Your task to perform on an android device: Go to eBay Image 0: 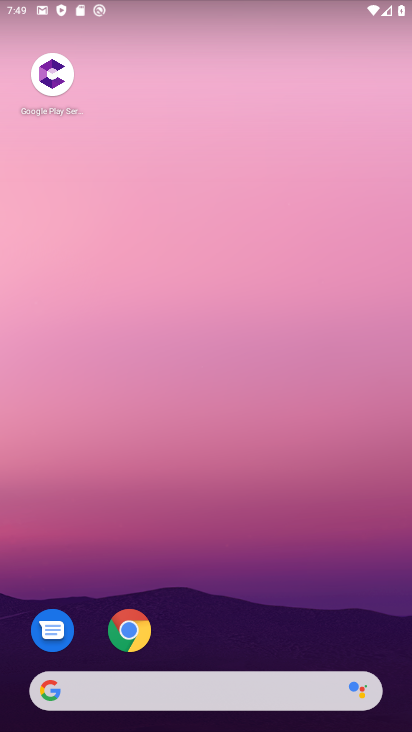
Step 0: drag from (193, 625) to (197, 41)
Your task to perform on an android device: Go to eBay Image 1: 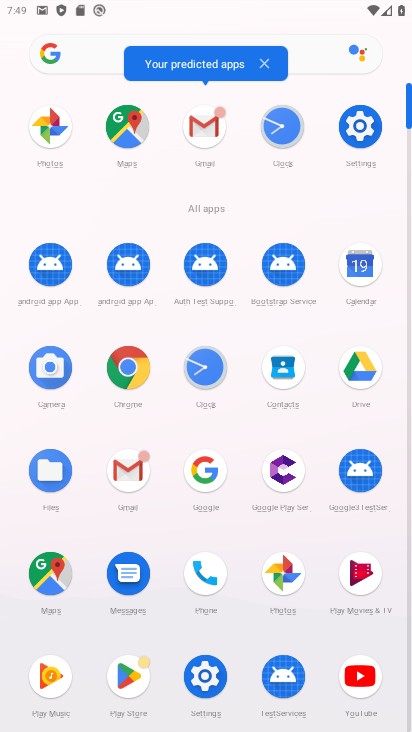
Step 1: click (122, 386)
Your task to perform on an android device: Go to eBay Image 2: 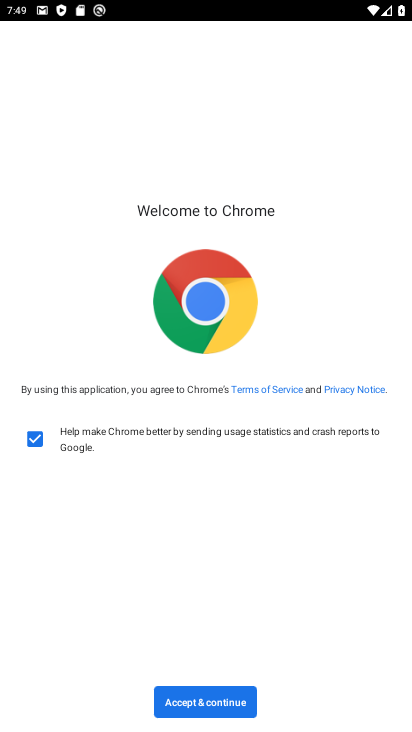
Step 2: click (211, 701)
Your task to perform on an android device: Go to eBay Image 3: 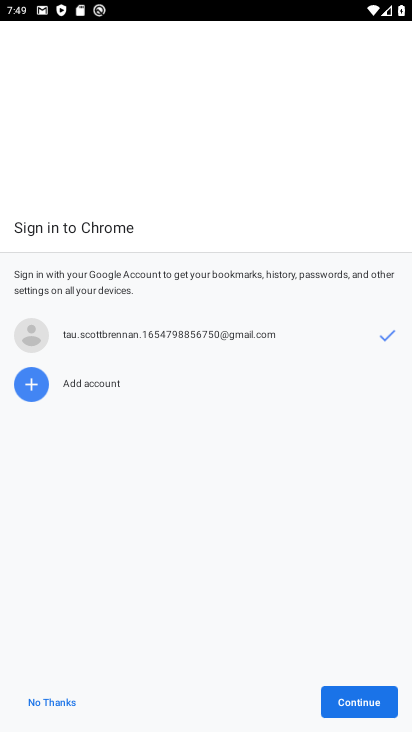
Step 3: click (353, 708)
Your task to perform on an android device: Go to eBay Image 4: 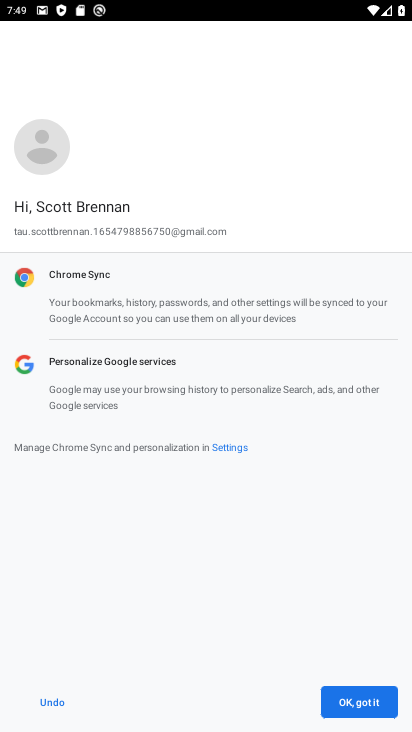
Step 4: click (353, 708)
Your task to perform on an android device: Go to eBay Image 5: 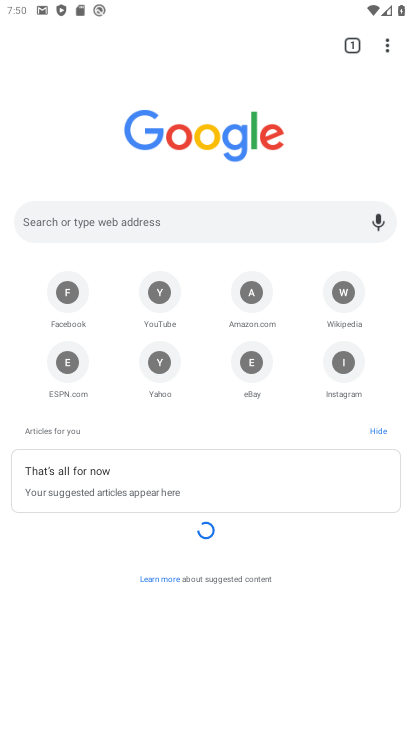
Step 5: click (118, 217)
Your task to perform on an android device: Go to eBay Image 6: 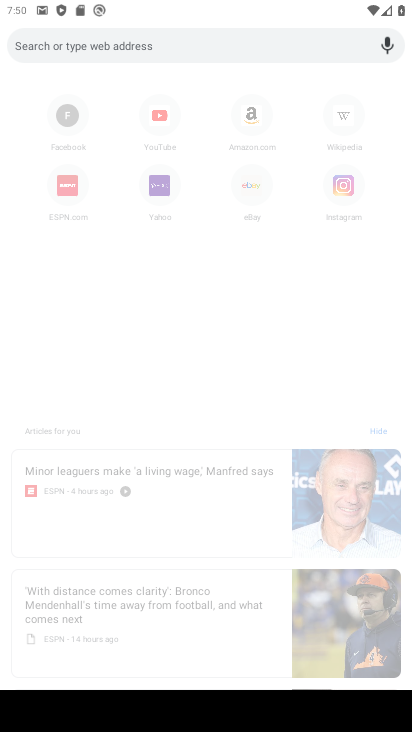
Step 6: click (262, 198)
Your task to perform on an android device: Go to eBay Image 7: 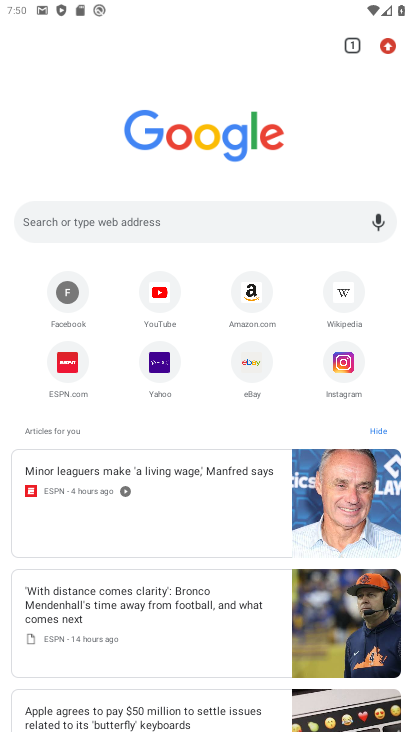
Step 7: click (251, 367)
Your task to perform on an android device: Go to eBay Image 8: 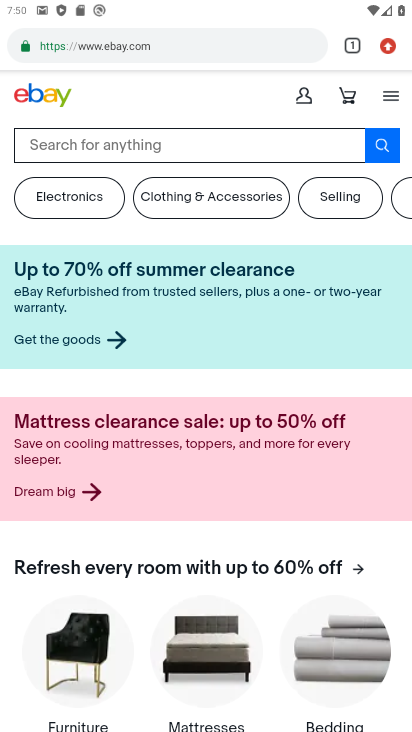
Step 8: task complete